Your task to perform on an android device: Go to Maps Image 0: 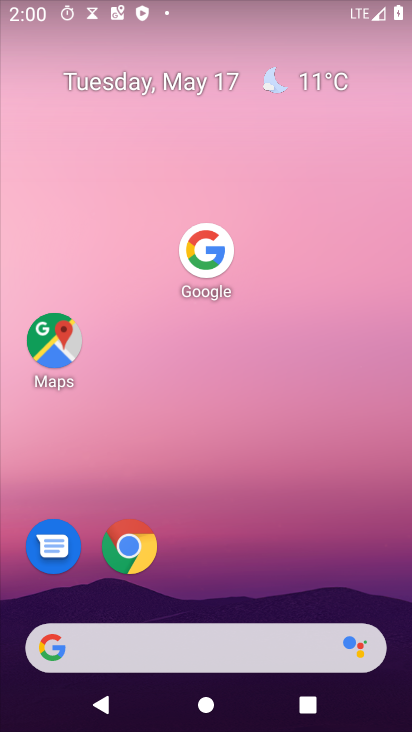
Step 0: click (52, 352)
Your task to perform on an android device: Go to Maps Image 1: 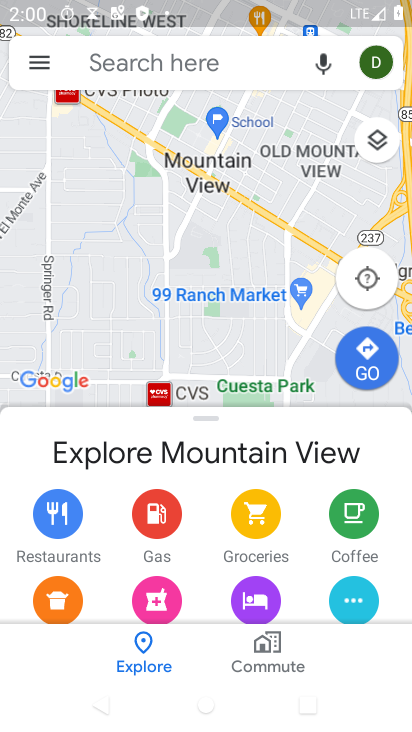
Step 1: task complete